Your task to perform on an android device: allow notifications from all sites in the chrome app Image 0: 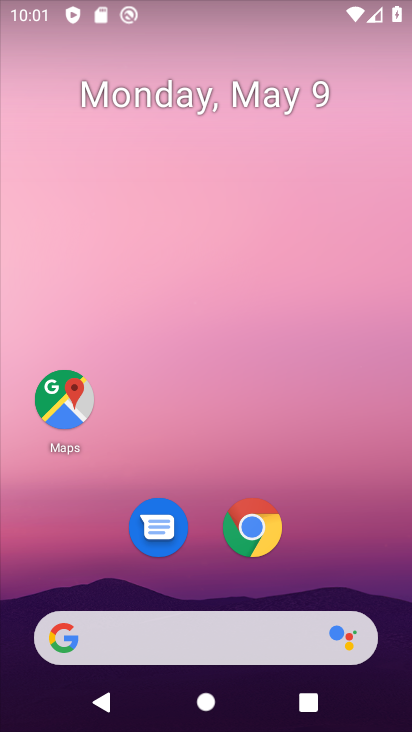
Step 0: drag from (323, 559) to (266, 203)
Your task to perform on an android device: allow notifications from all sites in the chrome app Image 1: 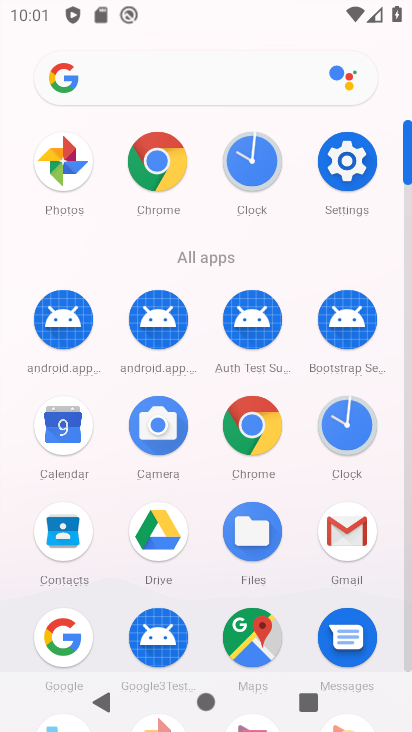
Step 1: click (159, 162)
Your task to perform on an android device: allow notifications from all sites in the chrome app Image 2: 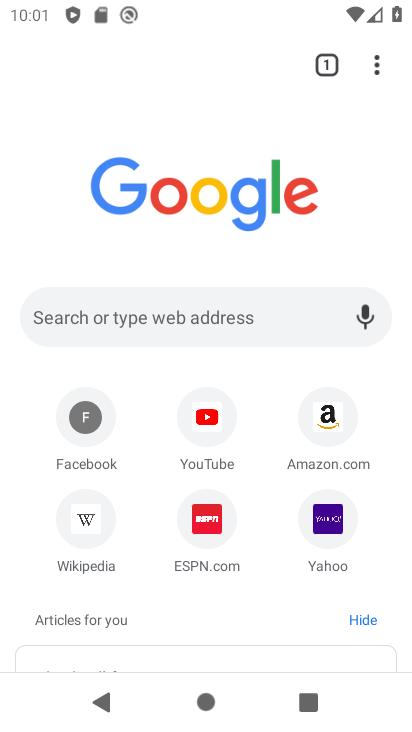
Step 2: click (378, 65)
Your task to perform on an android device: allow notifications from all sites in the chrome app Image 3: 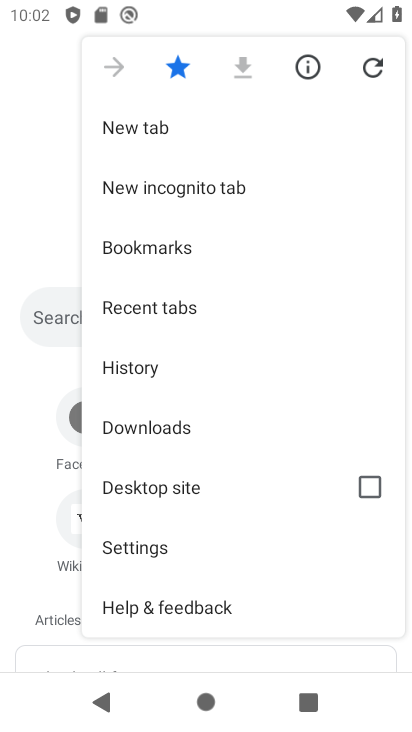
Step 3: click (141, 549)
Your task to perform on an android device: allow notifications from all sites in the chrome app Image 4: 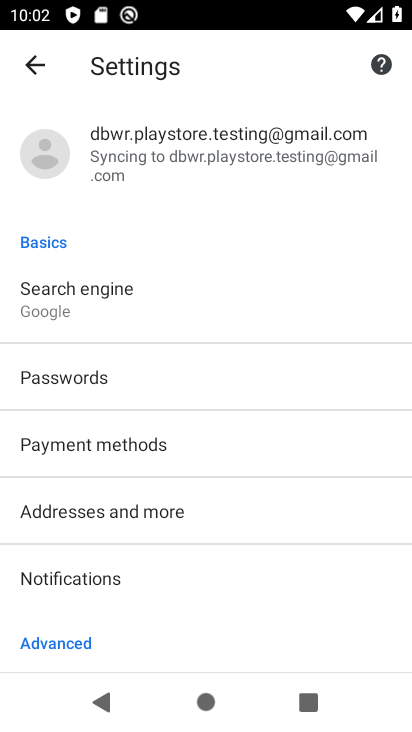
Step 4: drag from (167, 602) to (208, 466)
Your task to perform on an android device: allow notifications from all sites in the chrome app Image 5: 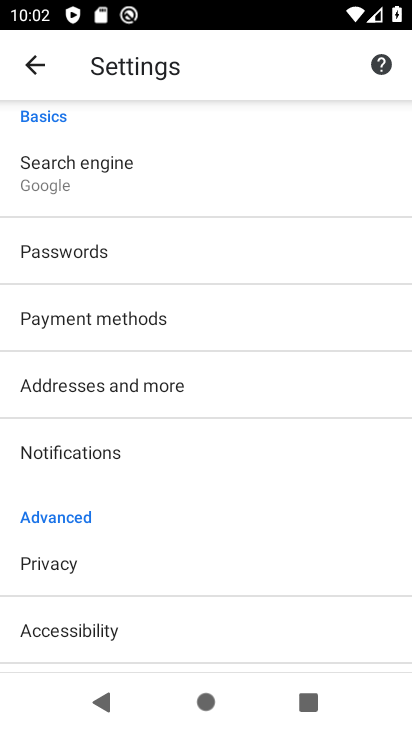
Step 5: drag from (152, 544) to (189, 385)
Your task to perform on an android device: allow notifications from all sites in the chrome app Image 6: 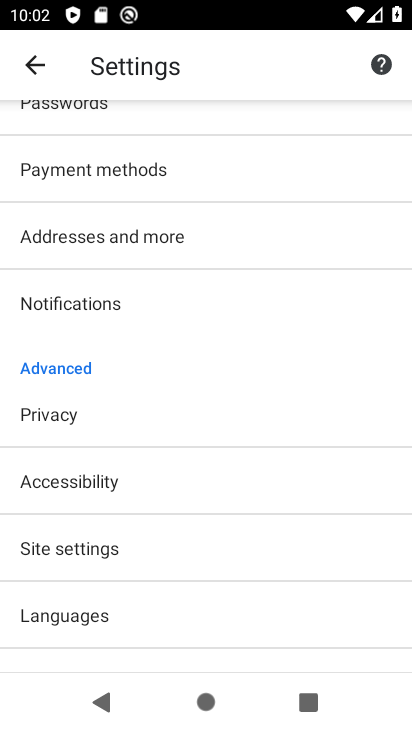
Step 6: click (82, 549)
Your task to perform on an android device: allow notifications from all sites in the chrome app Image 7: 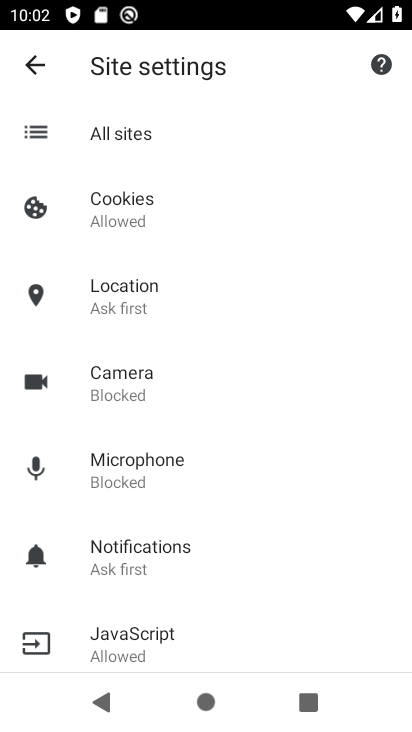
Step 7: click (143, 544)
Your task to perform on an android device: allow notifications from all sites in the chrome app Image 8: 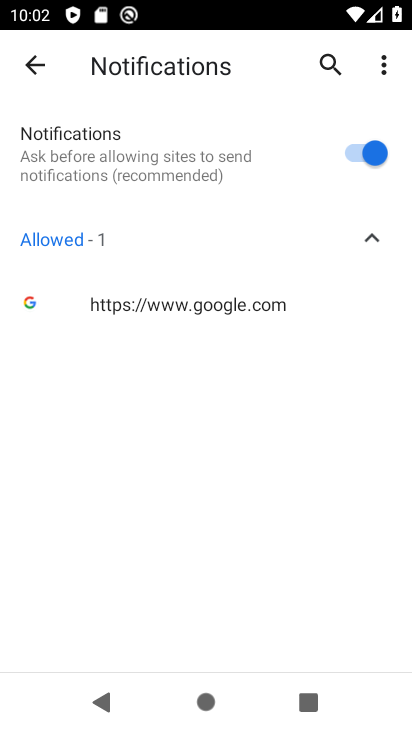
Step 8: task complete